Your task to perform on an android device: create a new album in the google photos Image 0: 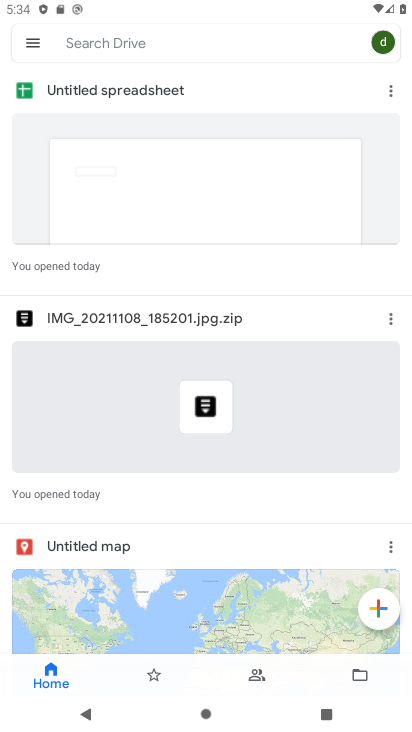
Step 0: press home button
Your task to perform on an android device: create a new album in the google photos Image 1: 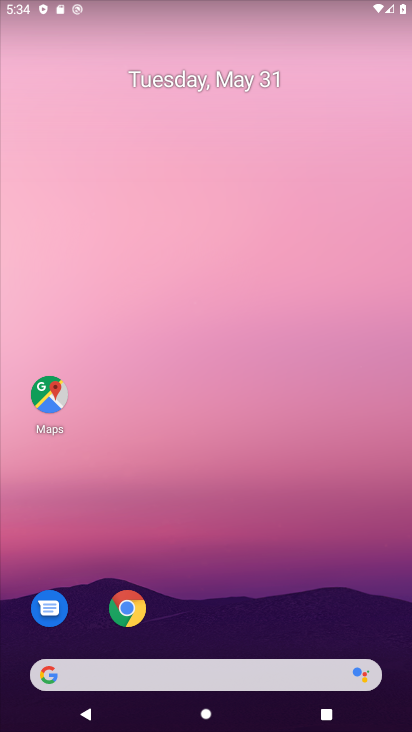
Step 1: drag from (229, 657) to (151, 126)
Your task to perform on an android device: create a new album in the google photos Image 2: 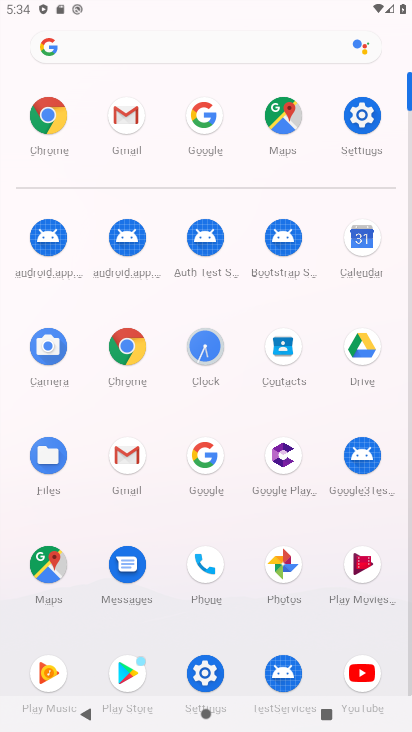
Step 2: click (285, 563)
Your task to perform on an android device: create a new album in the google photos Image 3: 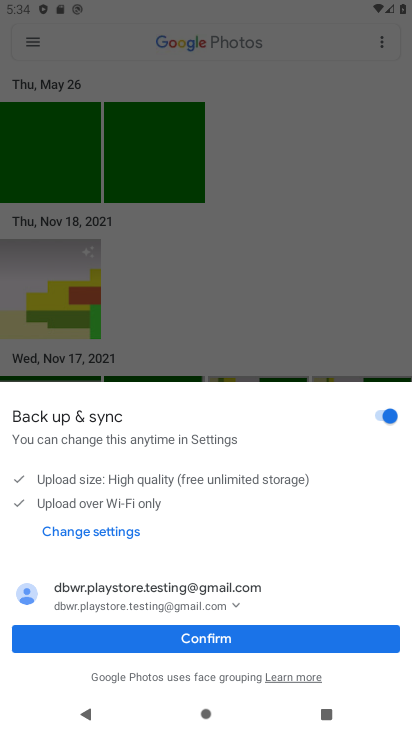
Step 3: click (194, 635)
Your task to perform on an android device: create a new album in the google photos Image 4: 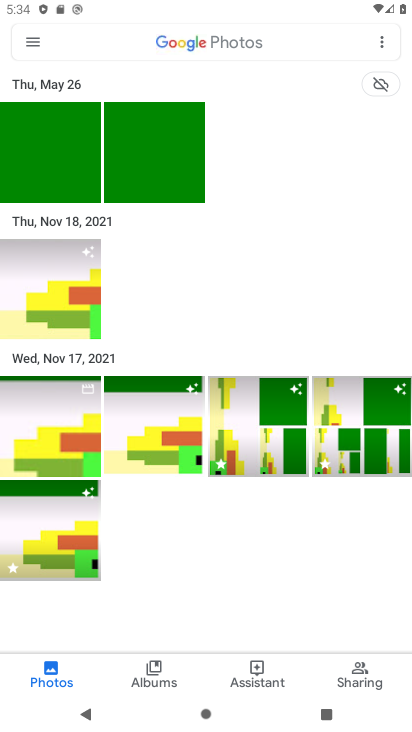
Step 4: click (142, 673)
Your task to perform on an android device: create a new album in the google photos Image 5: 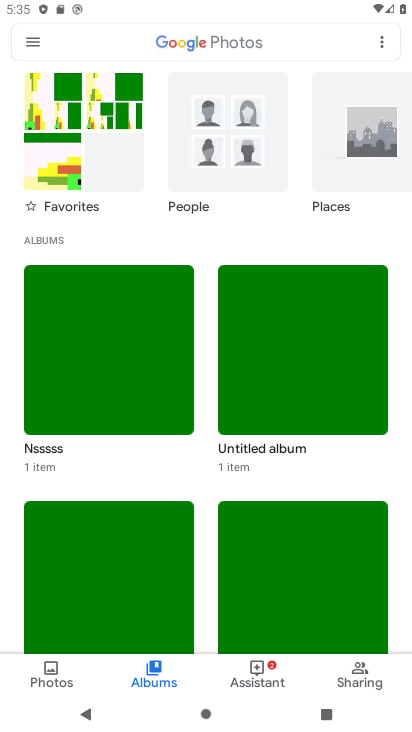
Step 5: task complete